Your task to perform on an android device: Open battery settings Image 0: 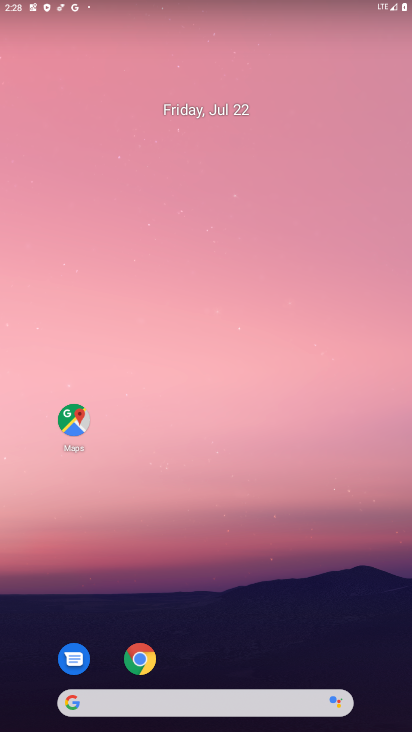
Step 0: press home button
Your task to perform on an android device: Open battery settings Image 1: 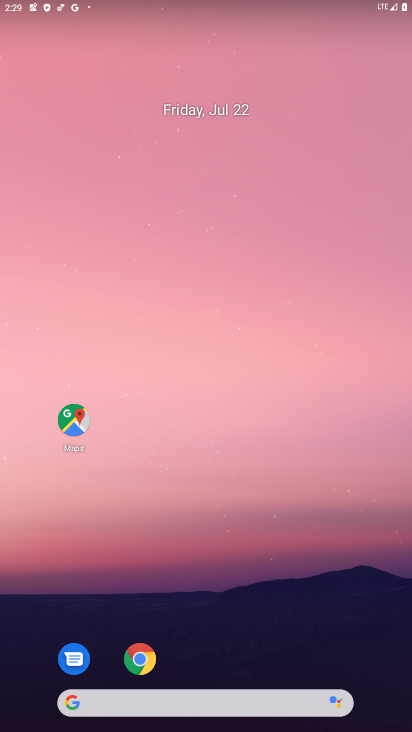
Step 1: drag from (202, 498) to (203, 268)
Your task to perform on an android device: Open battery settings Image 2: 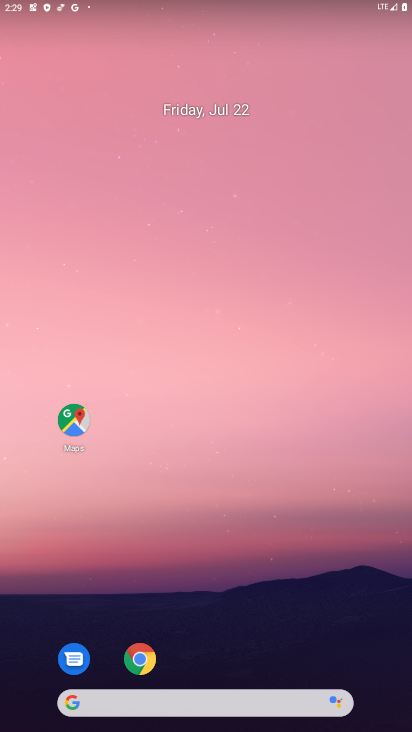
Step 2: drag from (188, 550) to (171, 94)
Your task to perform on an android device: Open battery settings Image 3: 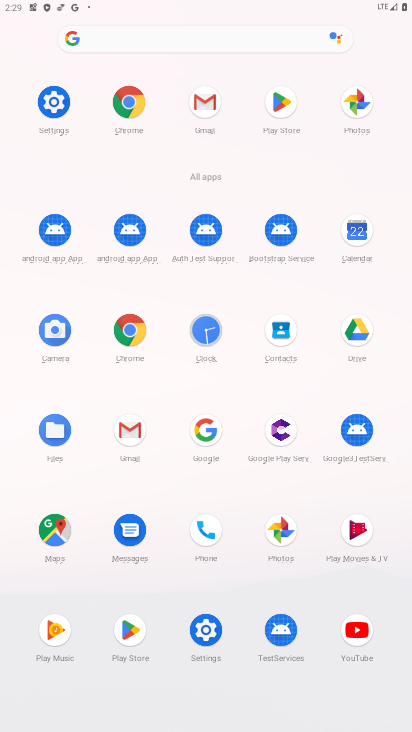
Step 3: click (53, 99)
Your task to perform on an android device: Open battery settings Image 4: 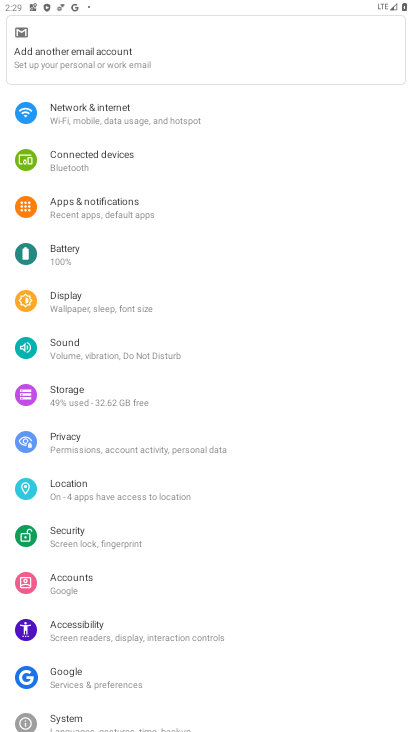
Step 4: click (61, 259)
Your task to perform on an android device: Open battery settings Image 5: 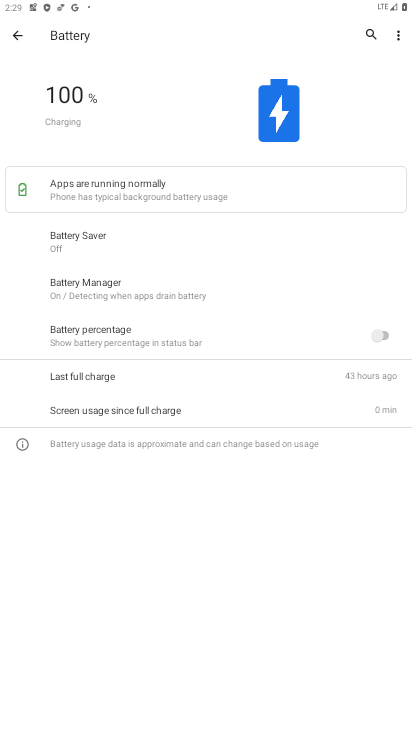
Step 5: task complete